Your task to perform on an android device: Open the phone app and click the voicemail tab. Image 0: 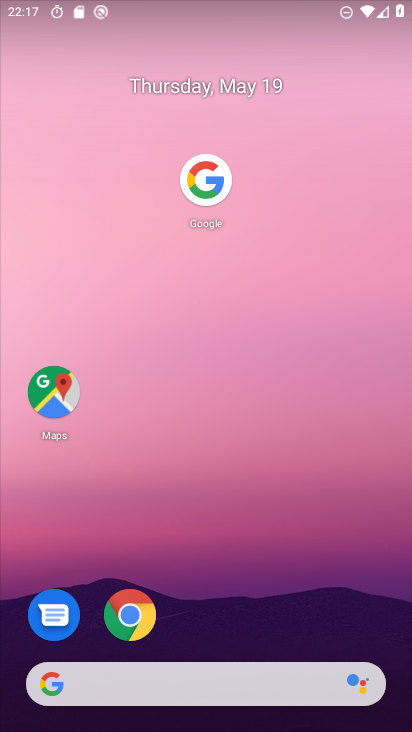
Step 0: drag from (257, 574) to (273, 67)
Your task to perform on an android device: Open the phone app and click the voicemail tab. Image 1: 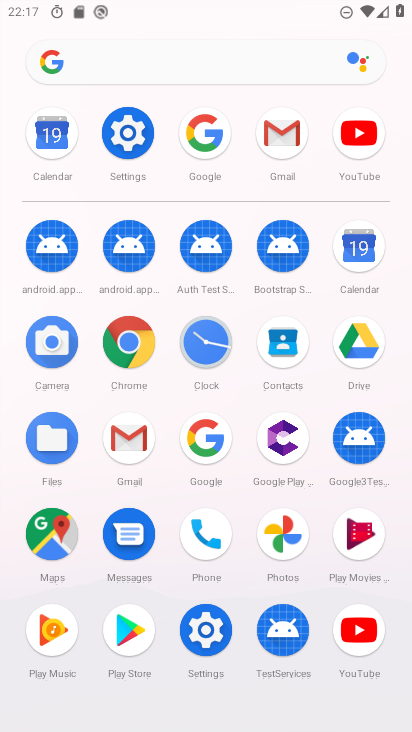
Step 1: click (208, 522)
Your task to perform on an android device: Open the phone app and click the voicemail tab. Image 2: 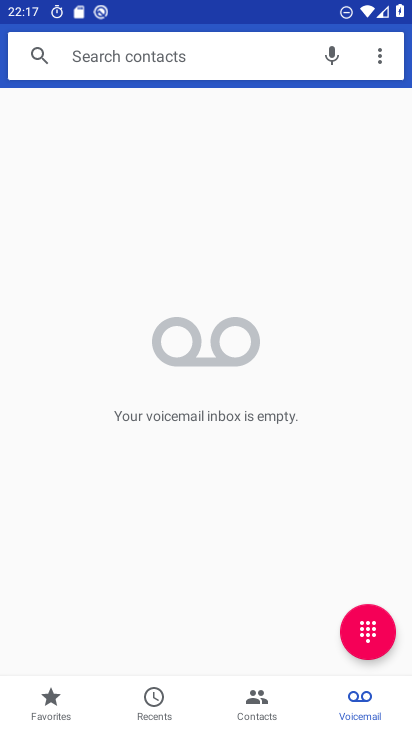
Step 2: click (361, 715)
Your task to perform on an android device: Open the phone app and click the voicemail tab. Image 3: 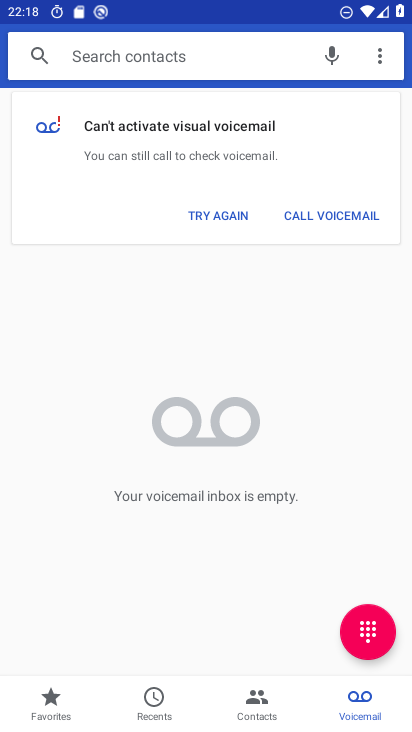
Step 3: task complete